Your task to perform on an android device: Search for the new nike shoes on Target Image 0: 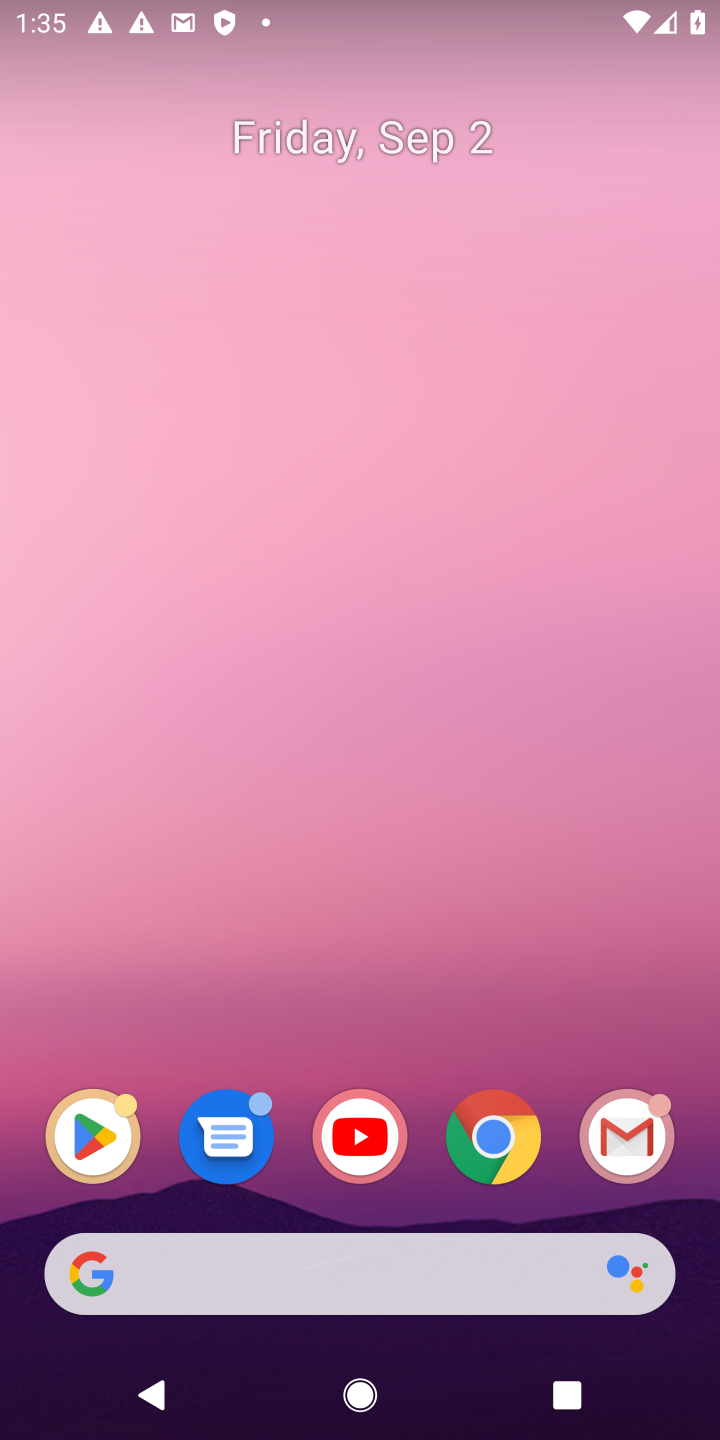
Step 0: press home button
Your task to perform on an android device: Search for the new nike shoes on Target Image 1: 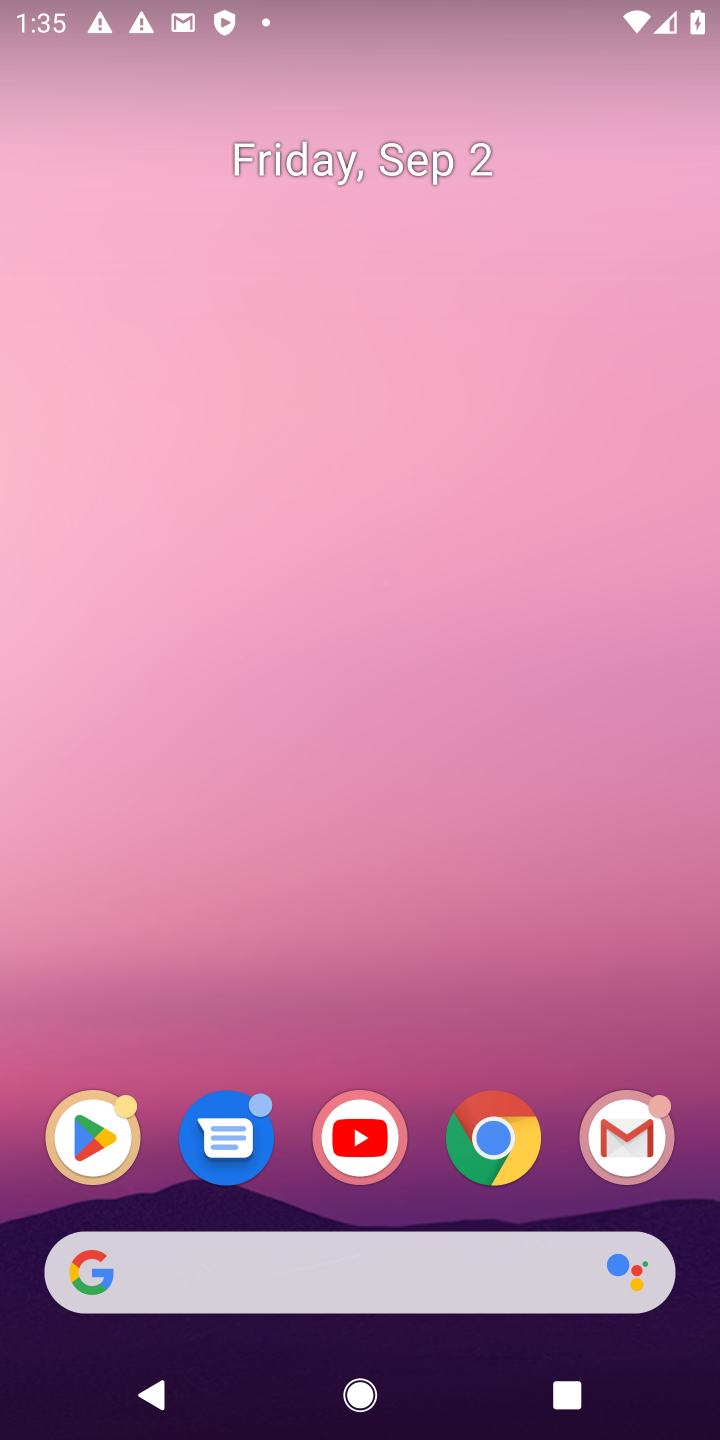
Step 1: drag from (419, 110) to (432, 3)
Your task to perform on an android device: Search for the new nike shoes on Target Image 2: 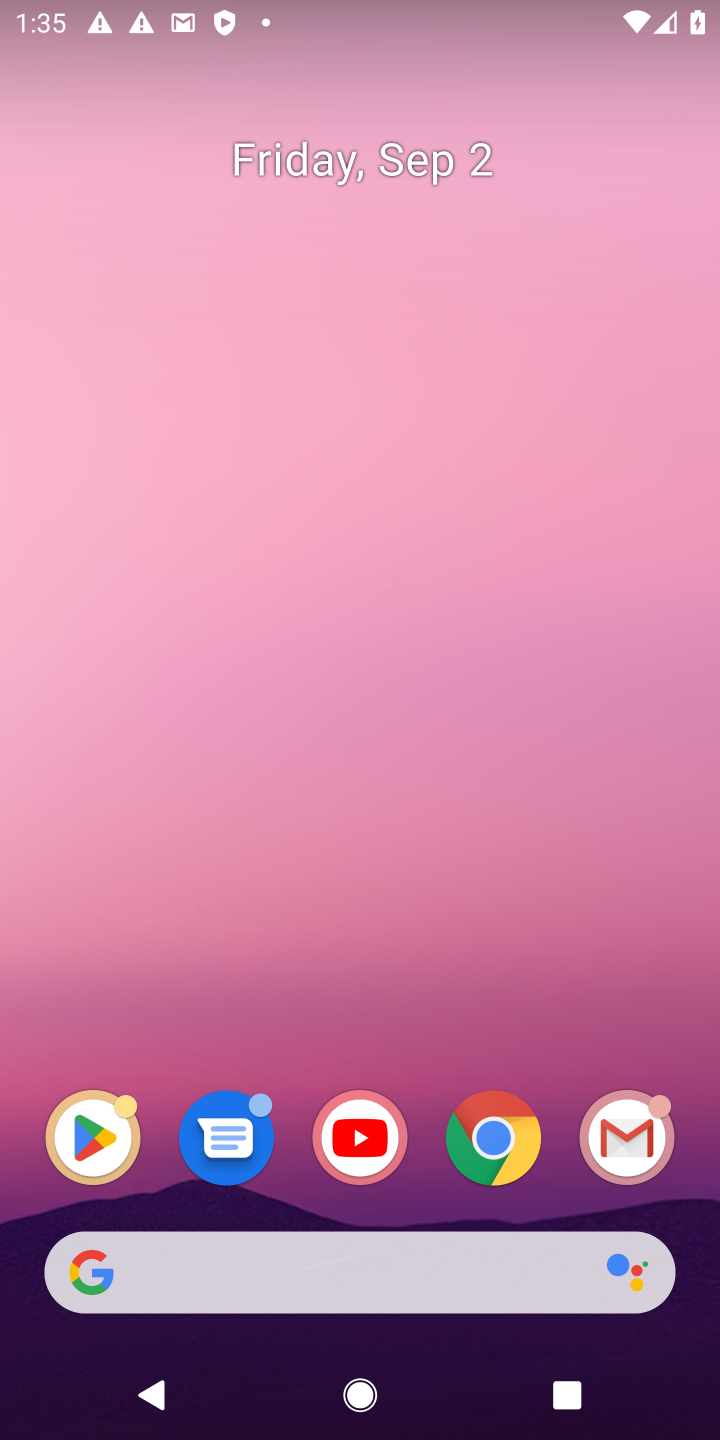
Step 2: drag from (417, 1016) to (431, 12)
Your task to perform on an android device: Search for the new nike shoes on Target Image 3: 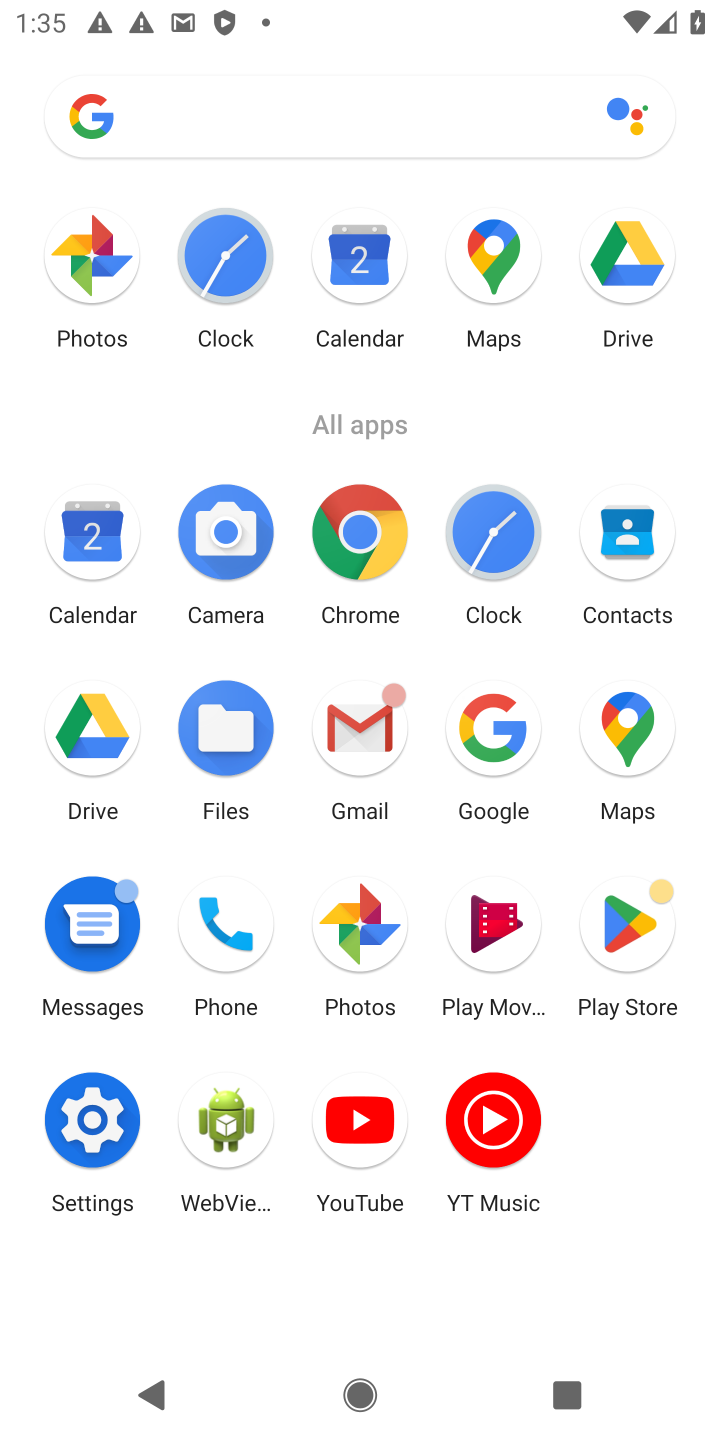
Step 3: click (357, 515)
Your task to perform on an android device: Search for the new nike shoes on Target Image 4: 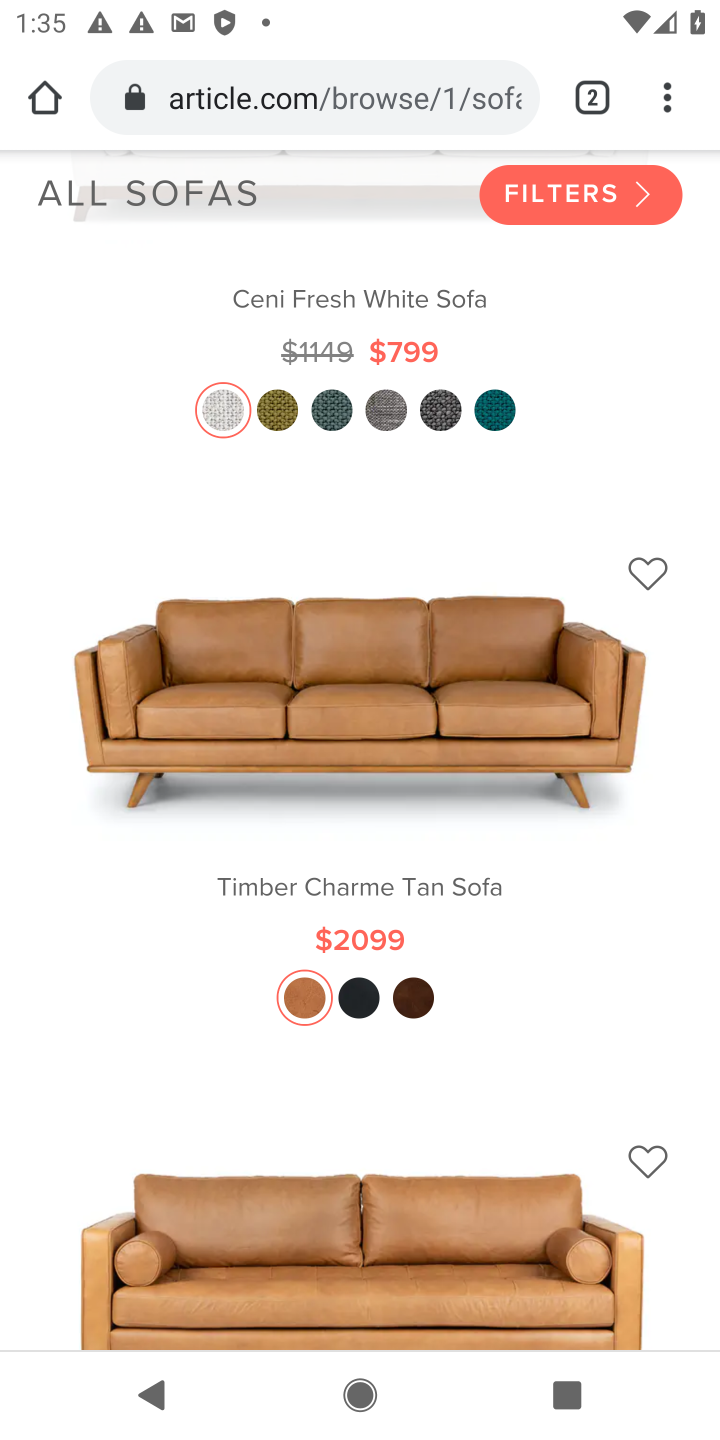
Step 4: click (254, 100)
Your task to perform on an android device: Search for the new nike shoes on Target Image 5: 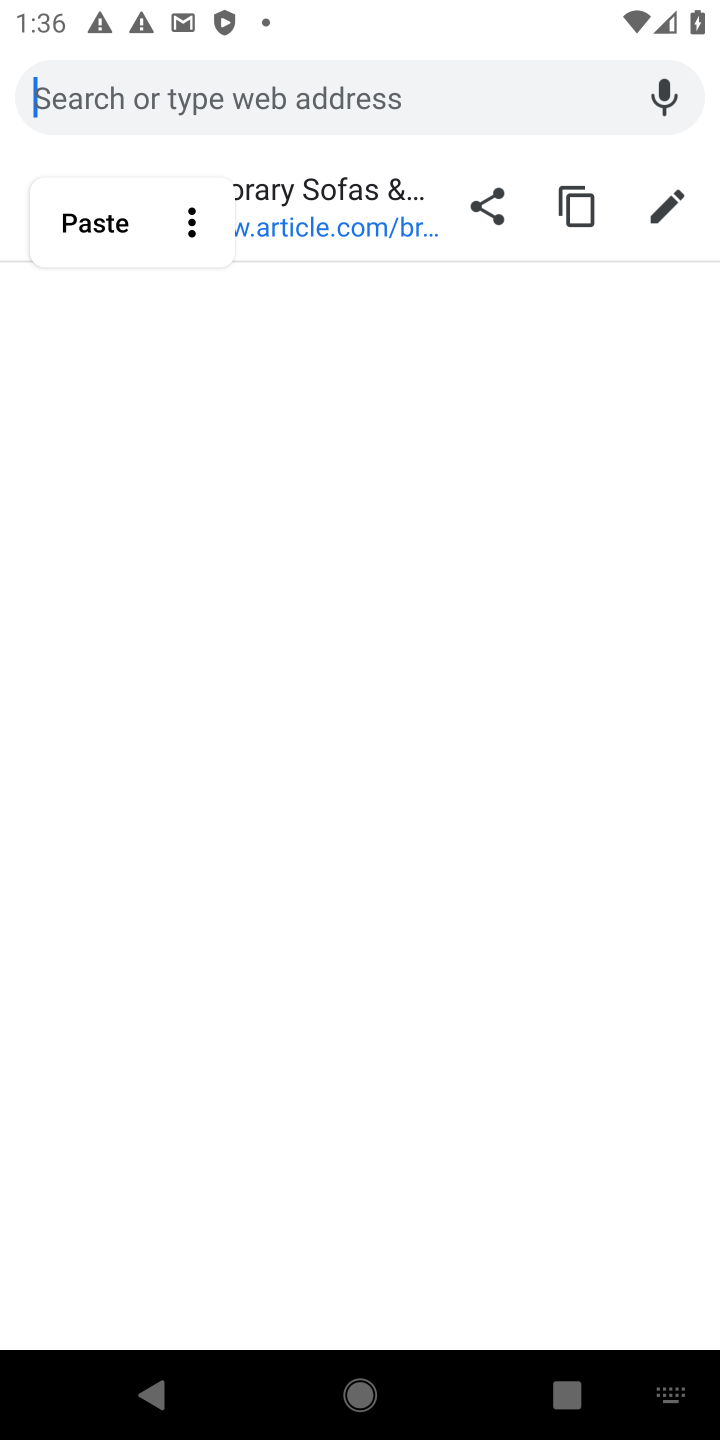
Step 5: click (173, 101)
Your task to perform on an android device: Search for the new nike shoes on Target Image 6: 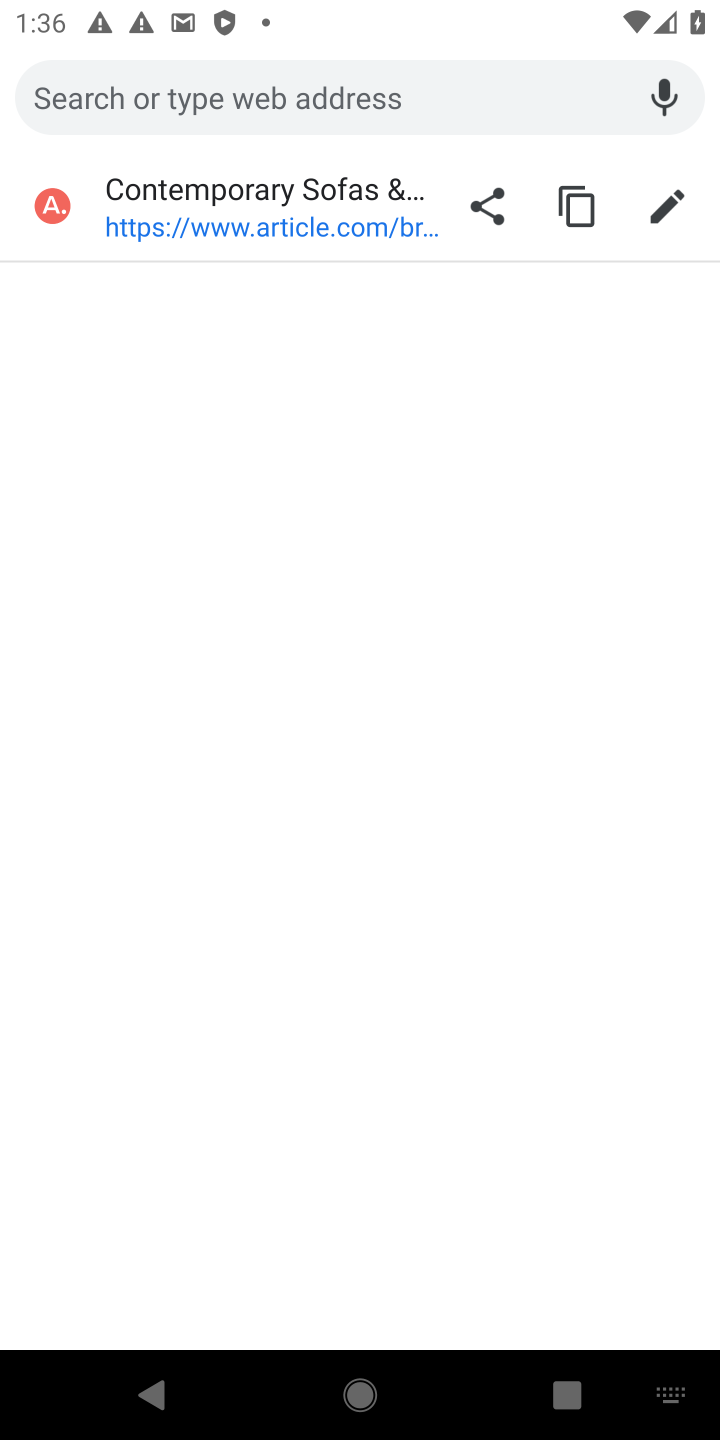
Step 6: type "nike shoes on Target"
Your task to perform on an android device: Search for the new nike shoes on Target Image 7: 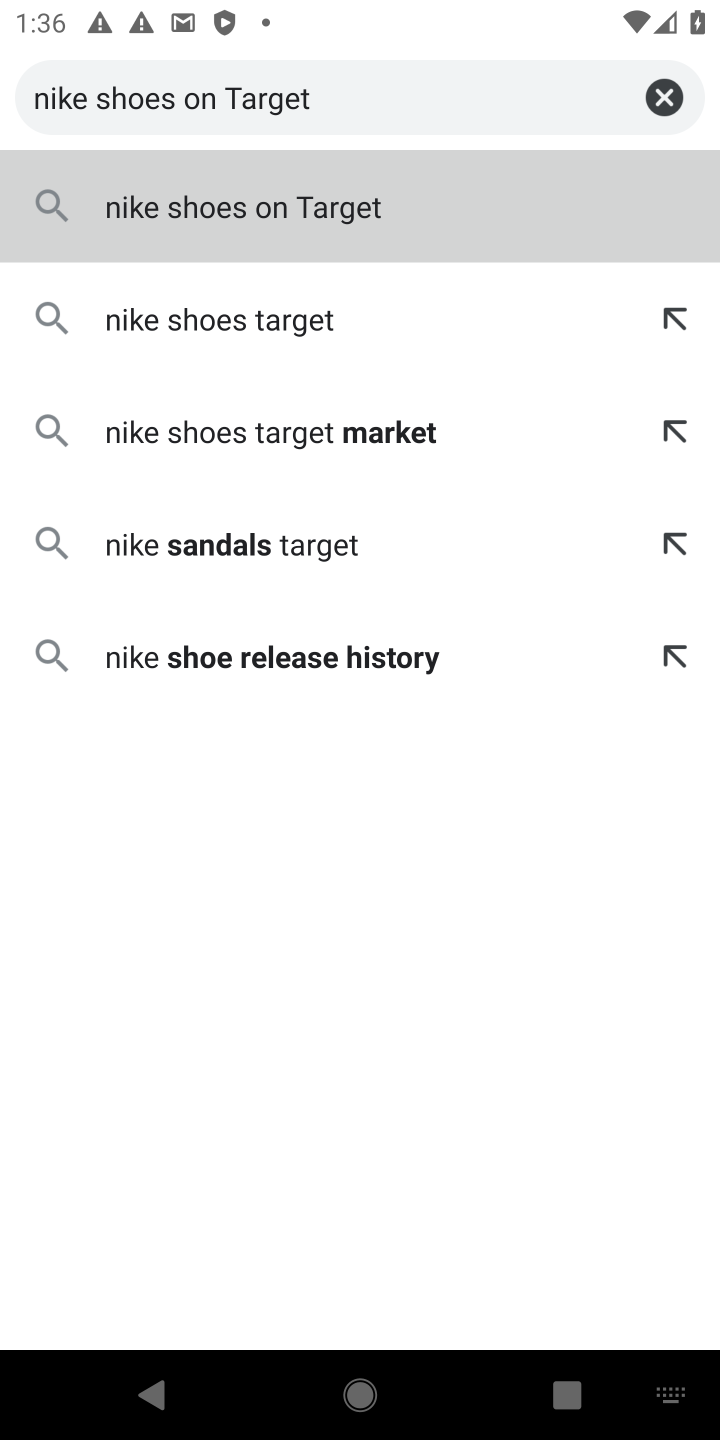
Step 7: click (220, 216)
Your task to perform on an android device: Search for the new nike shoes on Target Image 8: 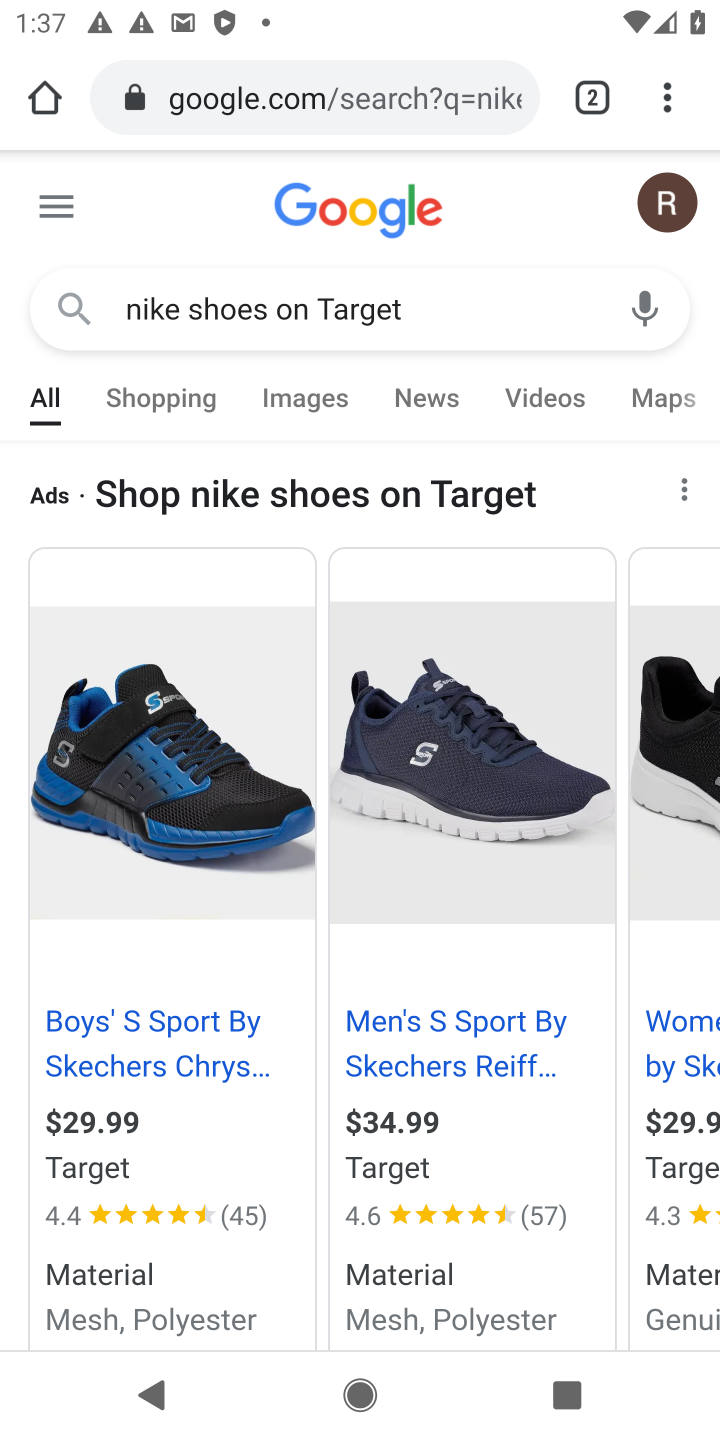
Step 8: drag from (330, 1241) to (405, 455)
Your task to perform on an android device: Search for the new nike shoes on Target Image 9: 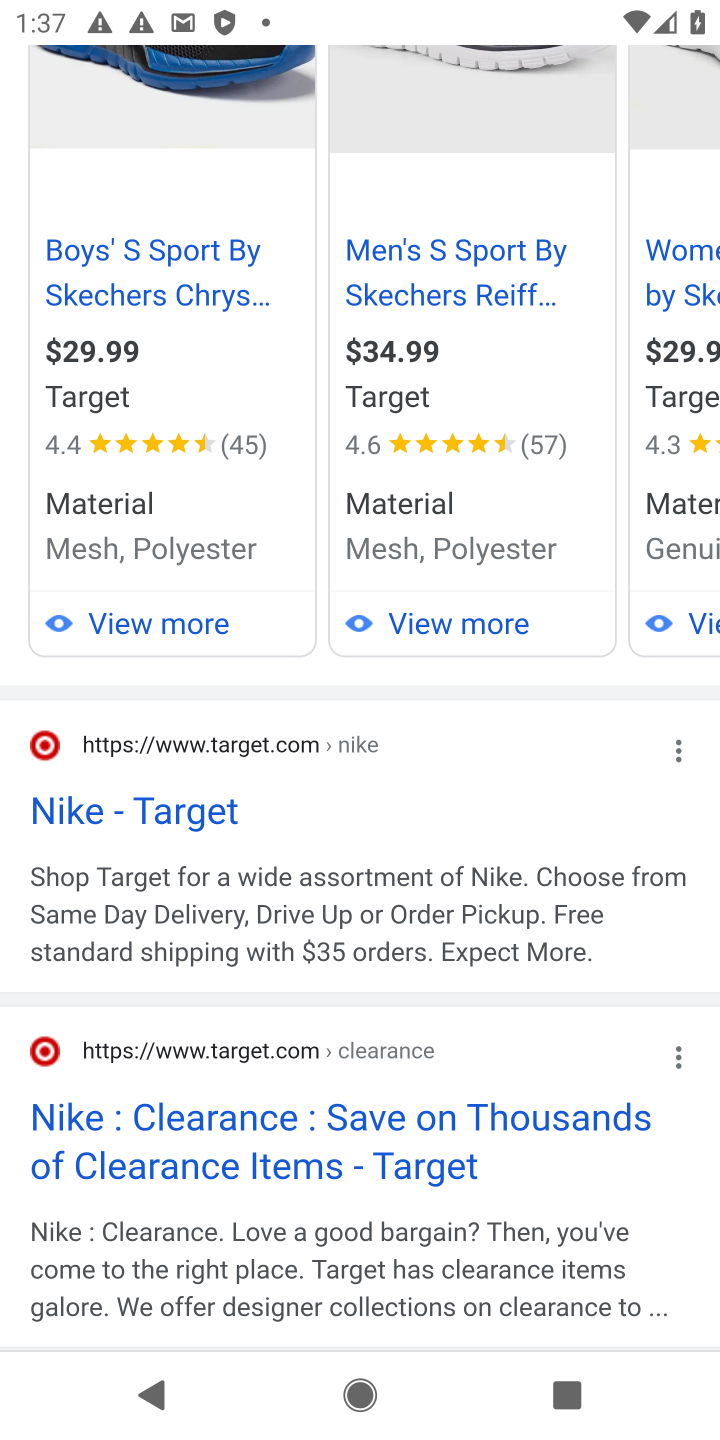
Step 9: click (215, 816)
Your task to perform on an android device: Search for the new nike shoes on Target Image 10: 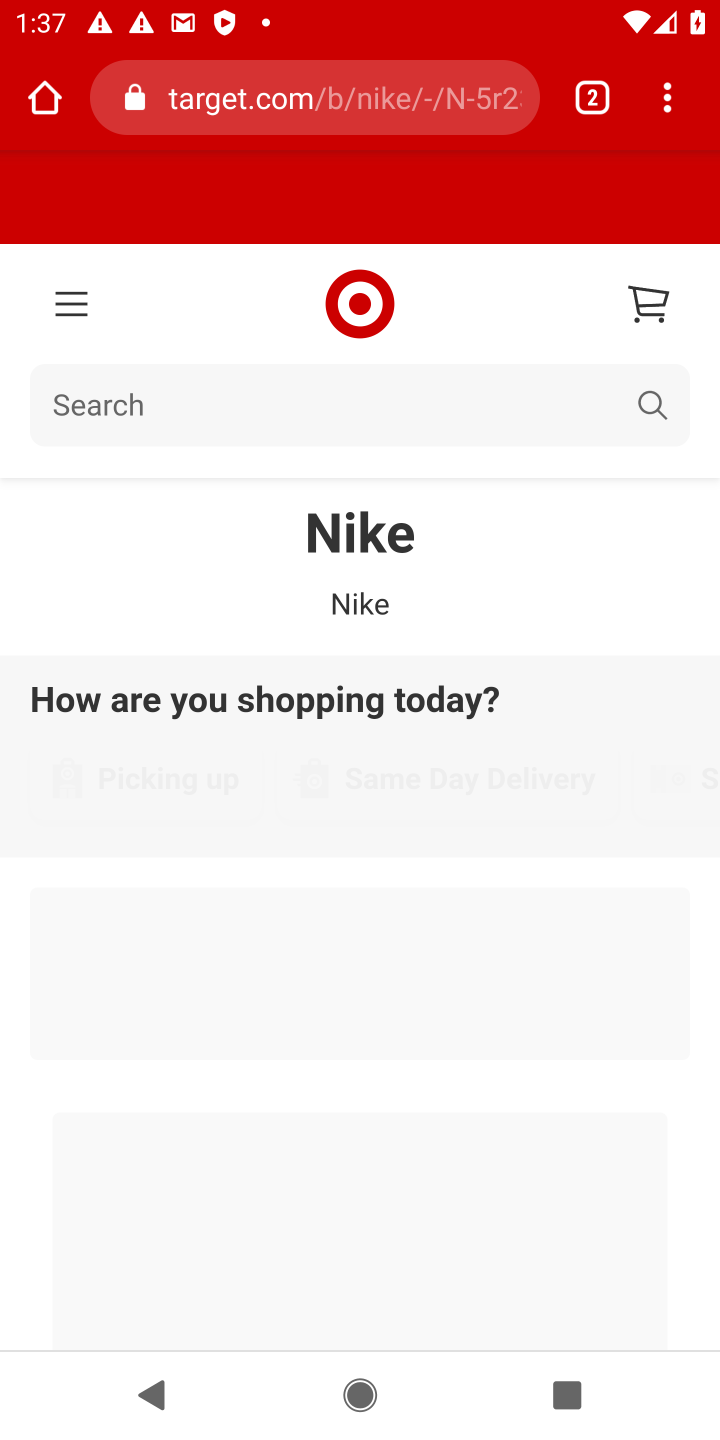
Step 10: drag from (339, 1158) to (502, 532)
Your task to perform on an android device: Search for the new nike shoes on Target Image 11: 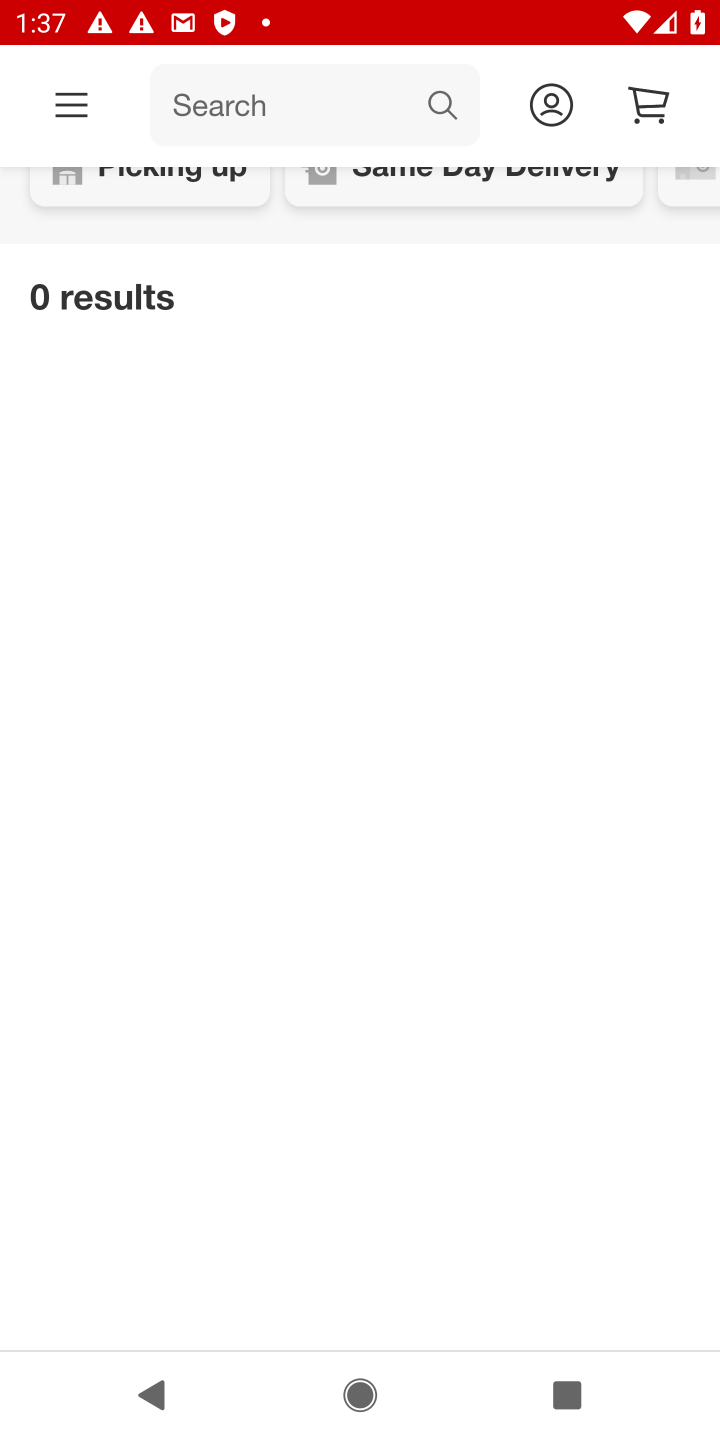
Step 11: drag from (338, 381) to (420, 1183)
Your task to perform on an android device: Search for the new nike shoes on Target Image 12: 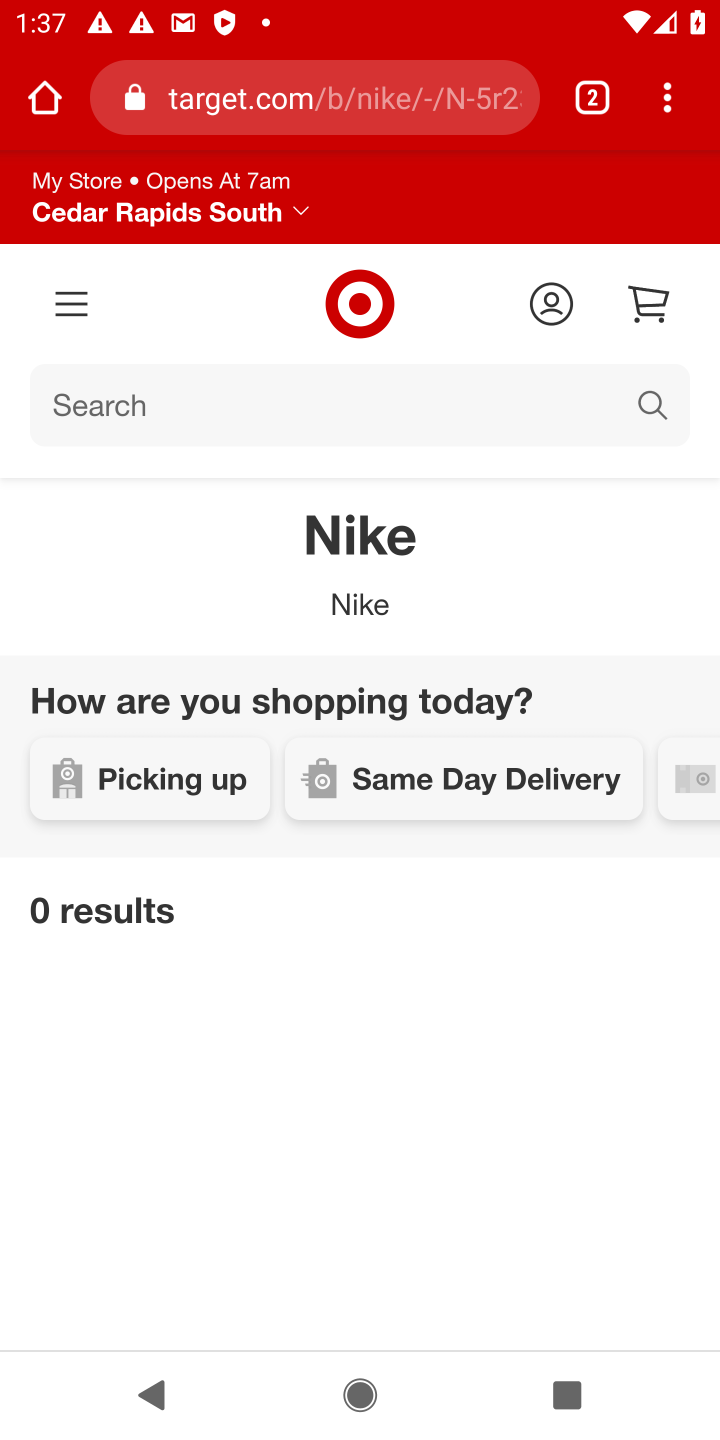
Step 12: drag from (328, 1220) to (500, 330)
Your task to perform on an android device: Search for the new nike shoes on Target Image 13: 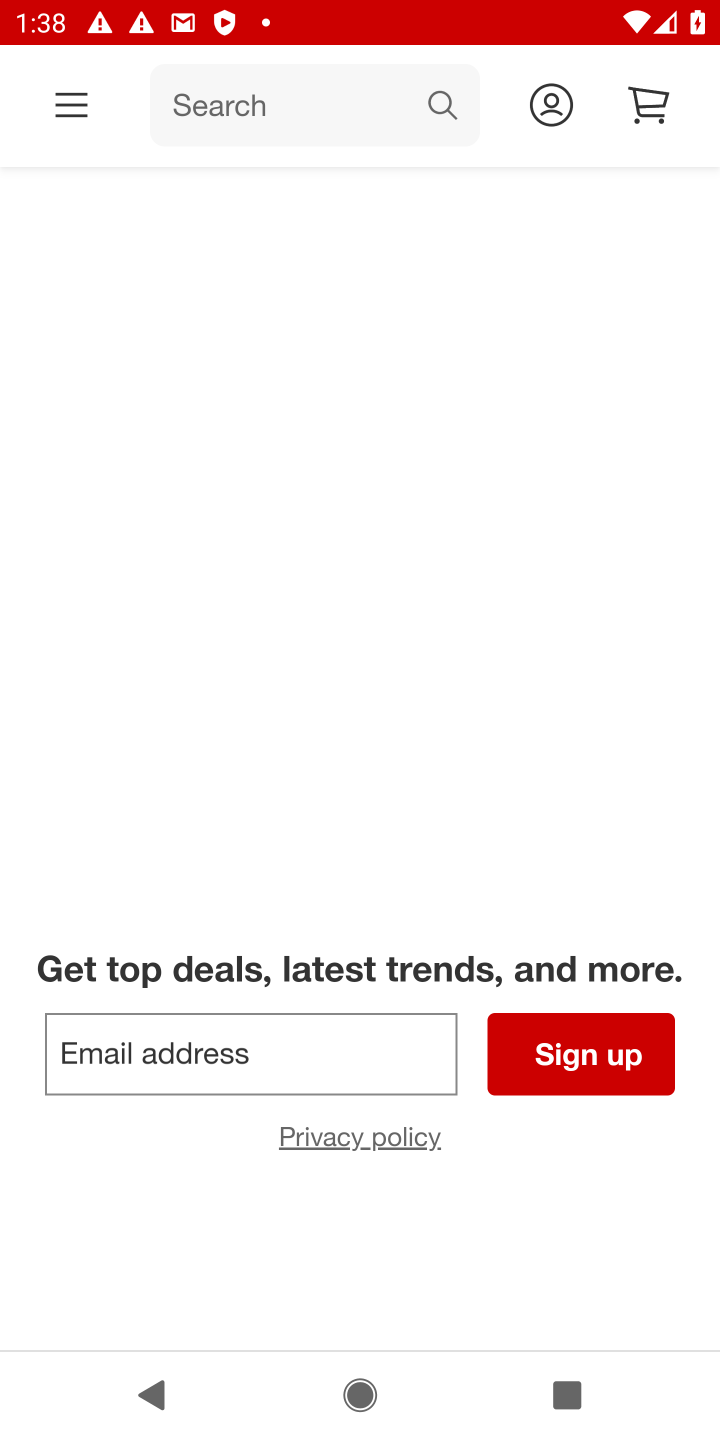
Step 13: drag from (357, 914) to (373, 332)
Your task to perform on an android device: Search for the new nike shoes on Target Image 14: 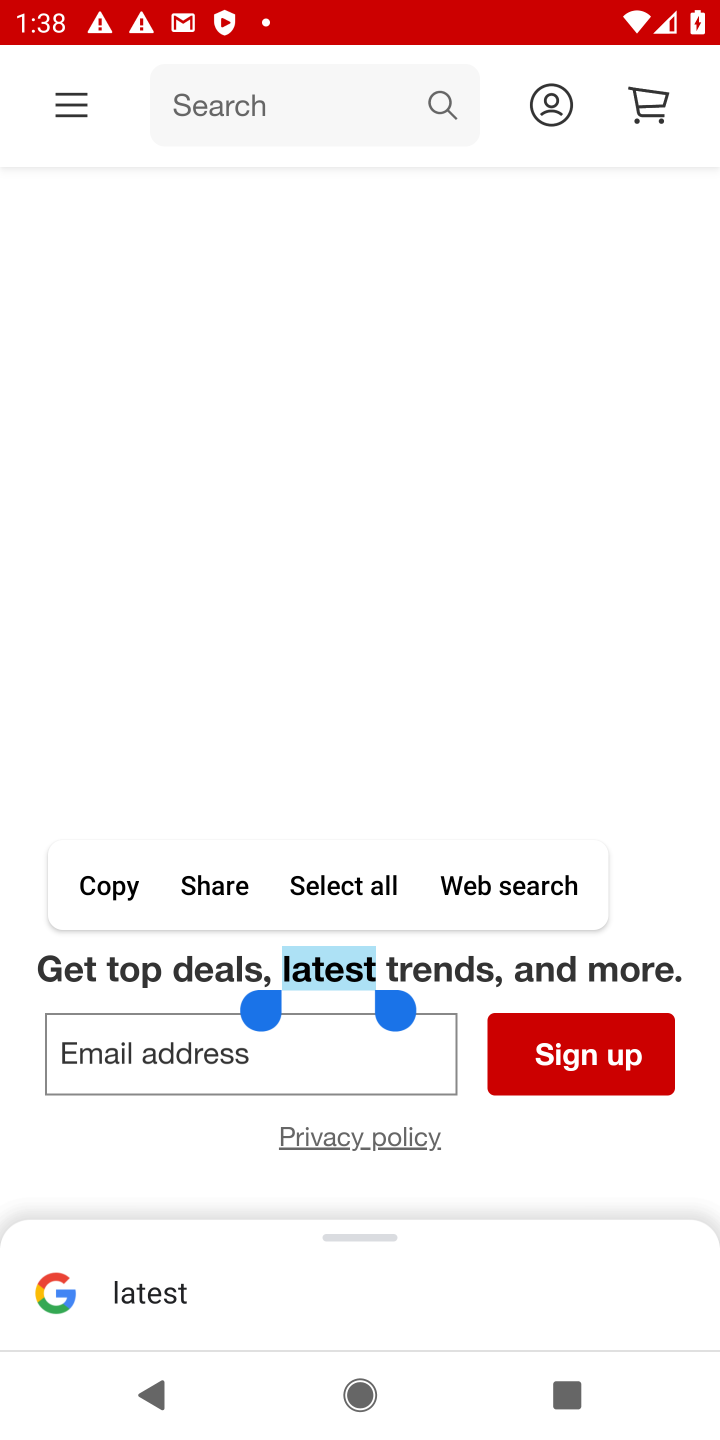
Step 14: click (419, 100)
Your task to perform on an android device: Search for the new nike shoes on Target Image 15: 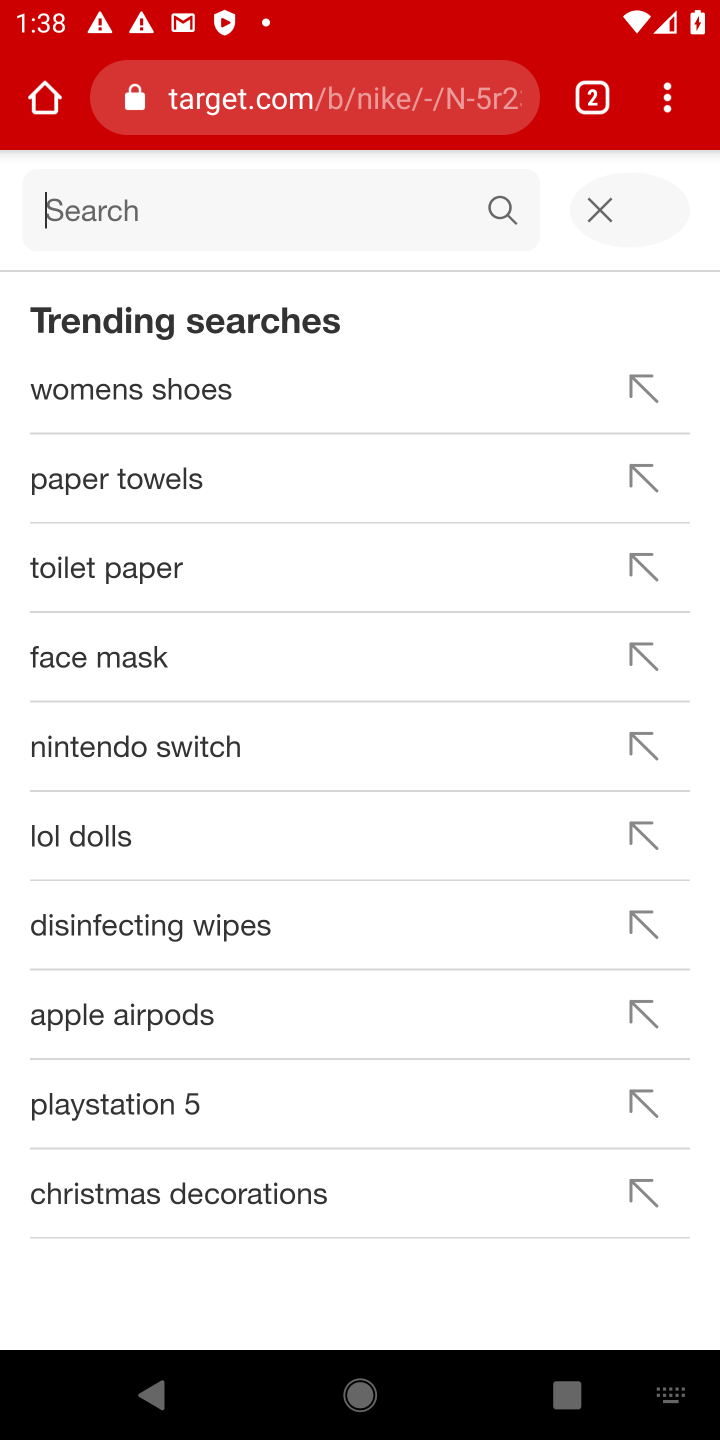
Step 15: type "shoes"
Your task to perform on an android device: Search for the new nike shoes on Target Image 16: 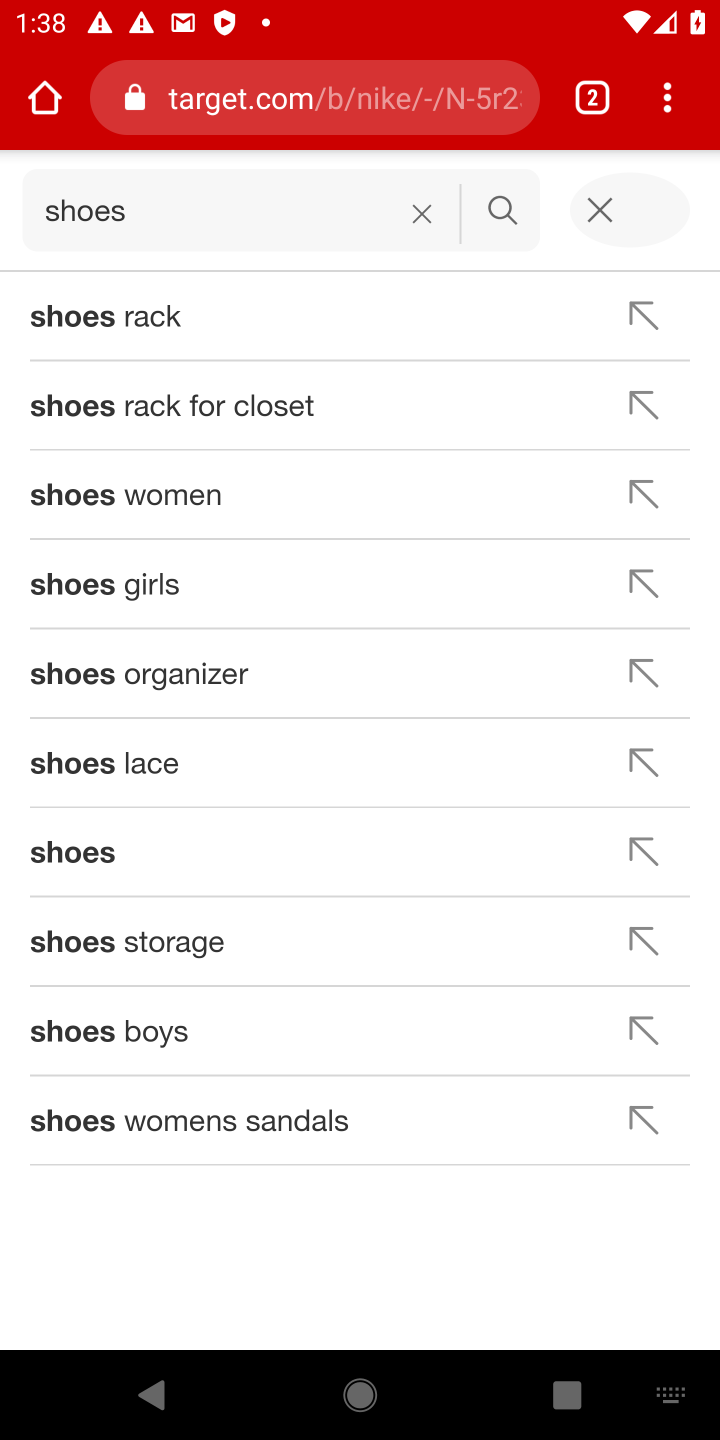
Step 16: click (477, 219)
Your task to perform on an android device: Search for the new nike shoes on Target Image 17: 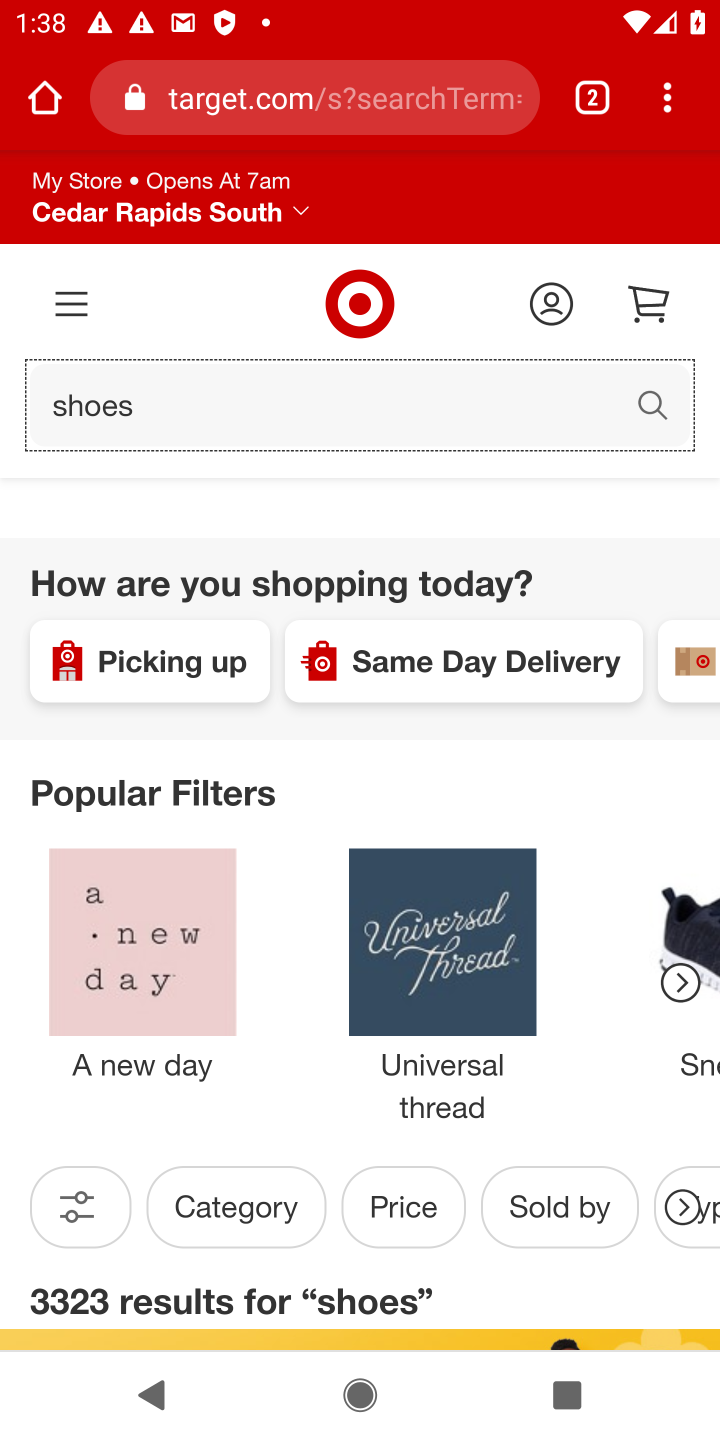
Step 17: drag from (265, 1007) to (301, 382)
Your task to perform on an android device: Search for the new nike shoes on Target Image 18: 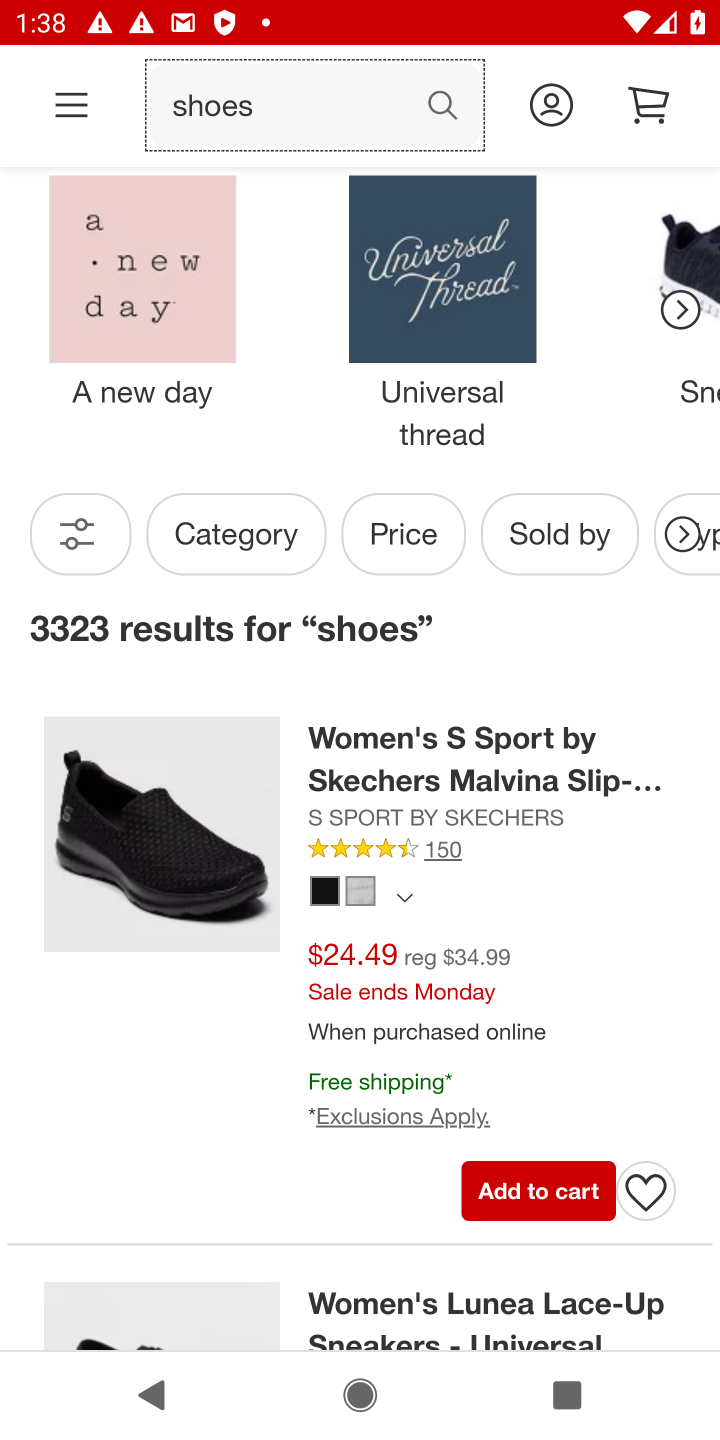
Step 18: drag from (273, 810) to (275, 722)
Your task to perform on an android device: Search for the new nike shoes on Target Image 19: 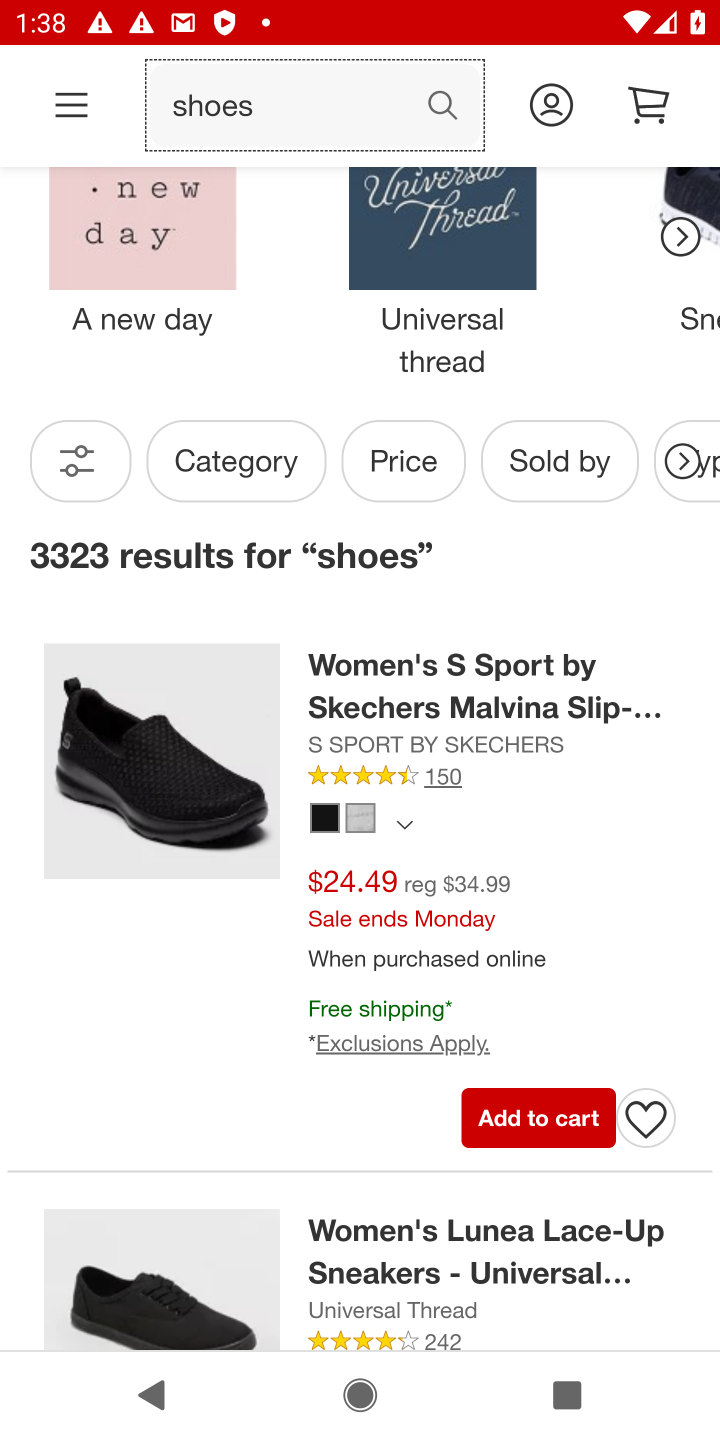
Step 19: drag from (298, 1182) to (335, 759)
Your task to perform on an android device: Search for the new nike shoes on Target Image 20: 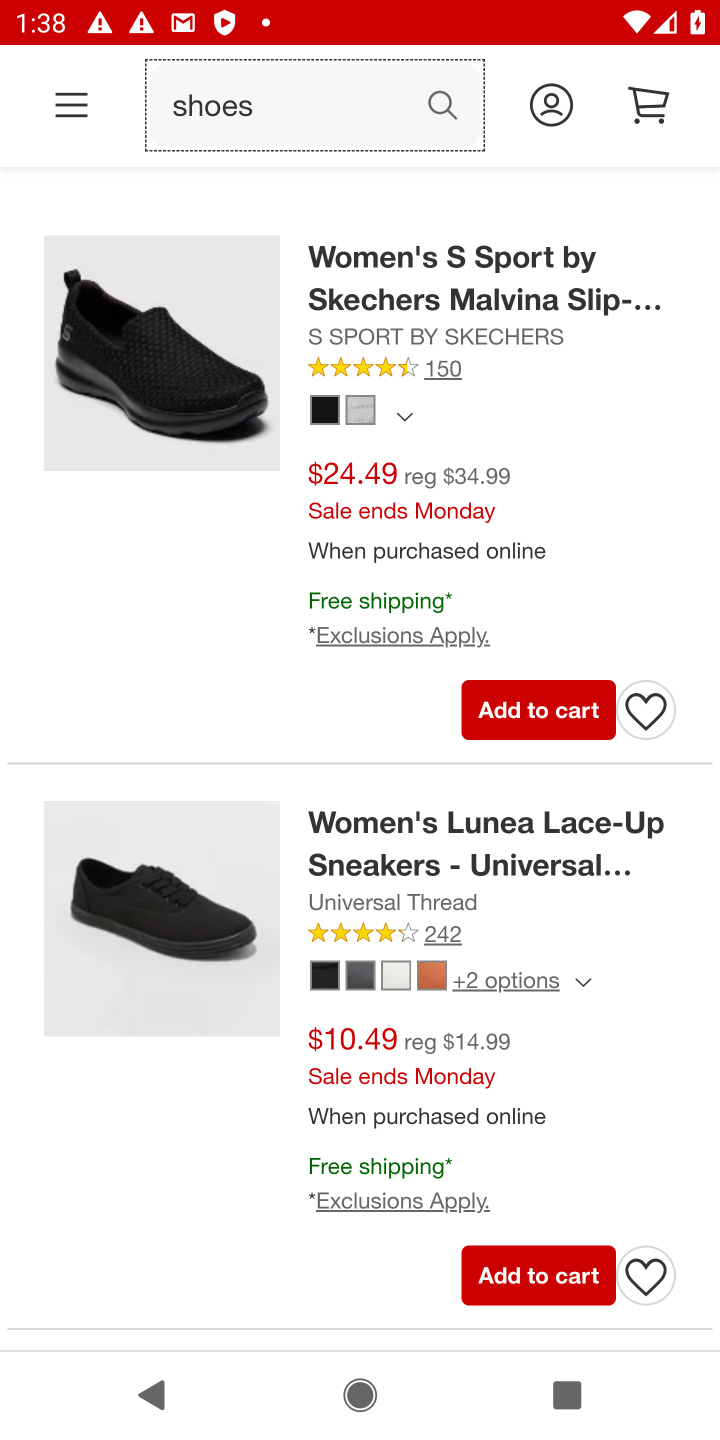
Step 20: drag from (271, 1209) to (338, 556)
Your task to perform on an android device: Search for the new nike shoes on Target Image 21: 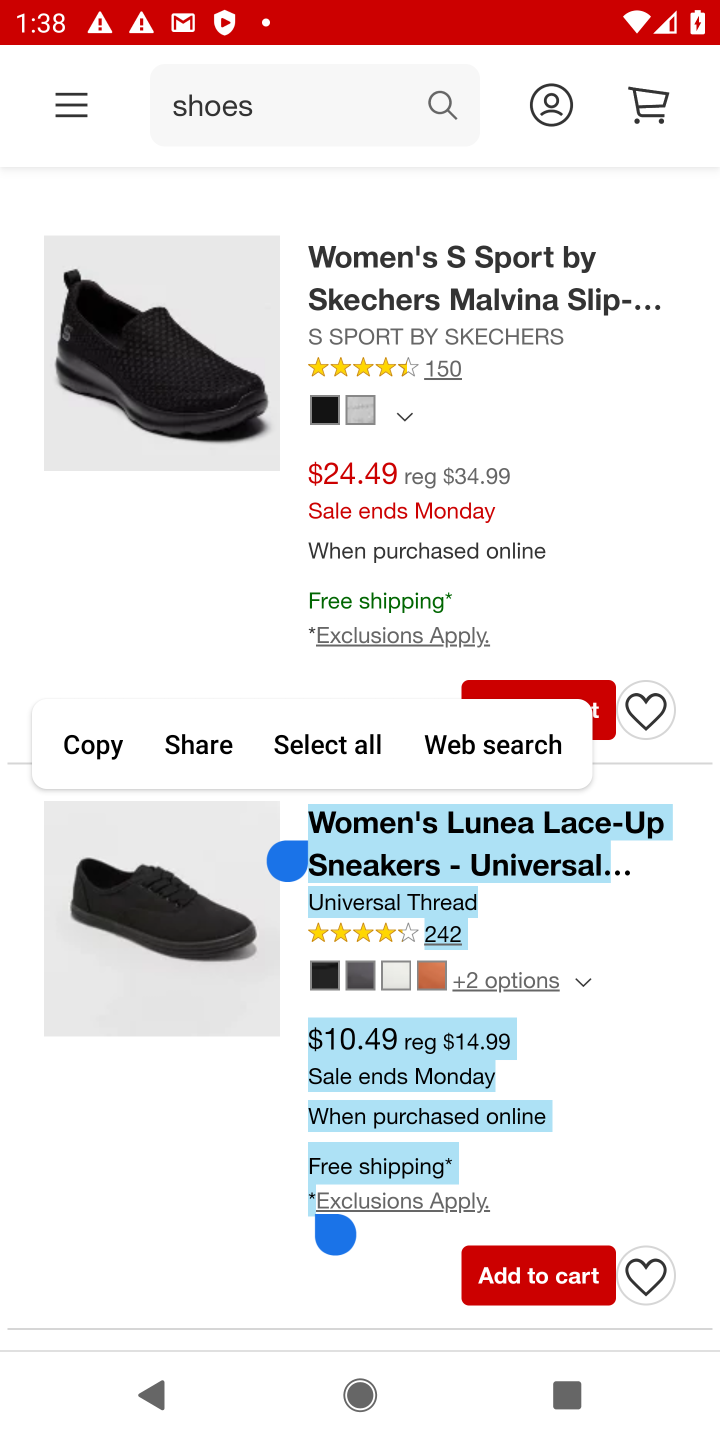
Step 21: click (197, 1160)
Your task to perform on an android device: Search for the new nike shoes on Target Image 22: 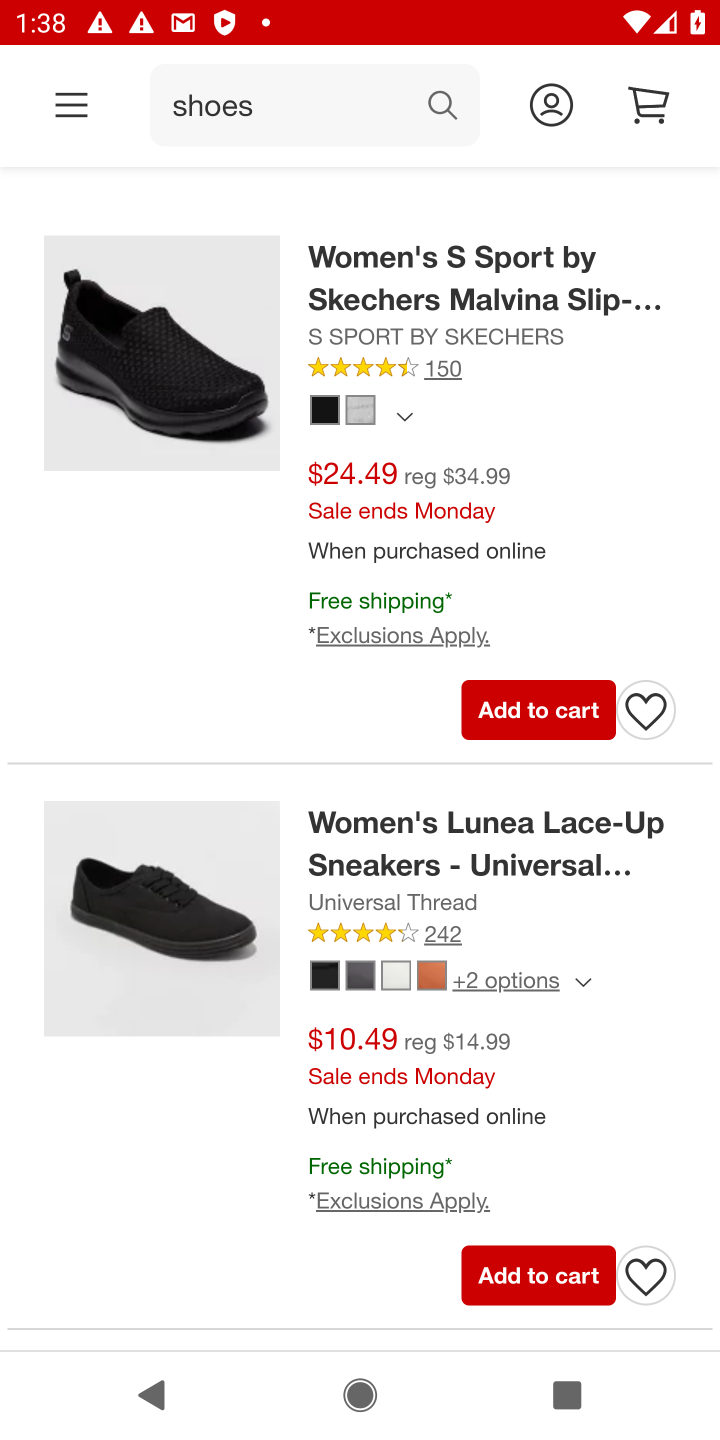
Step 22: task complete